Your task to perform on an android device: Open Google Image 0: 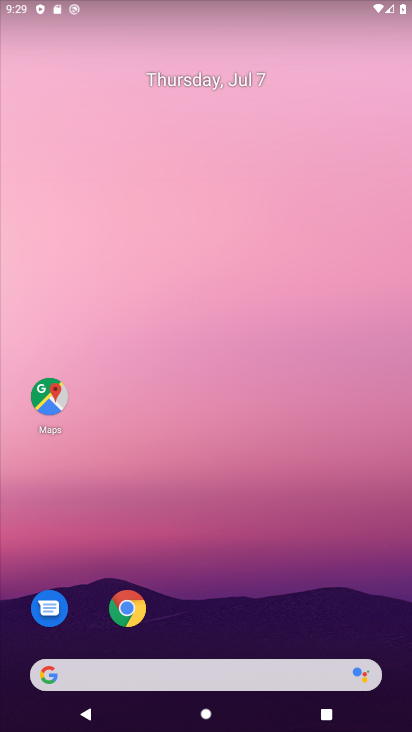
Step 0: drag from (180, 652) to (319, 22)
Your task to perform on an android device: Open Google Image 1: 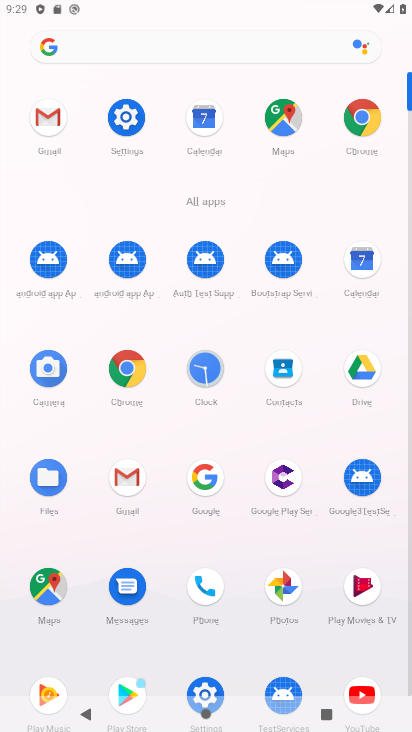
Step 1: click (202, 481)
Your task to perform on an android device: Open Google Image 2: 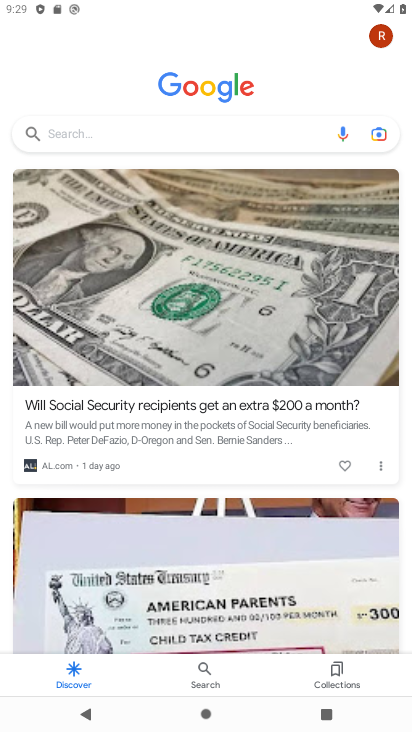
Step 2: task complete